Your task to perform on an android device: toggle translation in the chrome app Image 0: 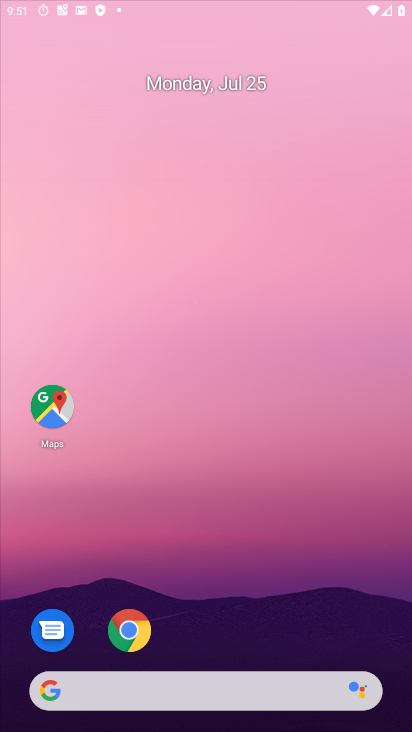
Step 0: press home button
Your task to perform on an android device: toggle translation in the chrome app Image 1: 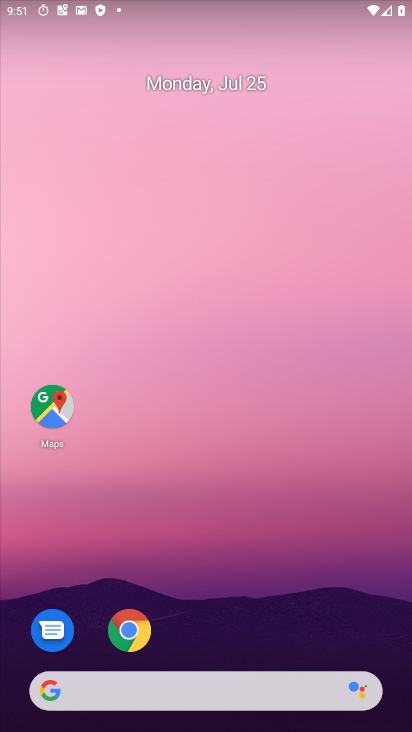
Step 1: drag from (249, 605) to (255, 4)
Your task to perform on an android device: toggle translation in the chrome app Image 2: 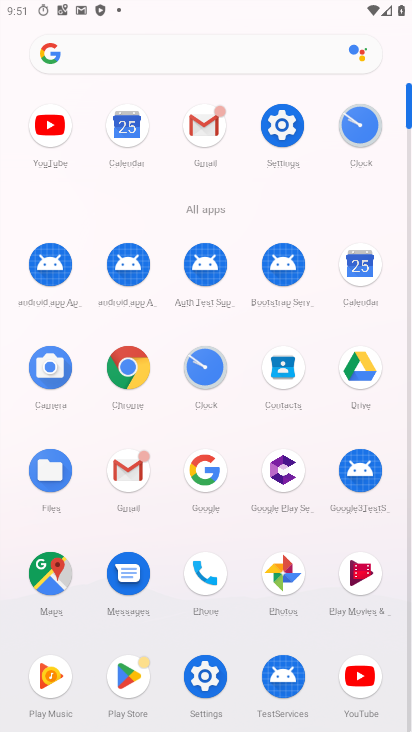
Step 2: click (125, 368)
Your task to perform on an android device: toggle translation in the chrome app Image 3: 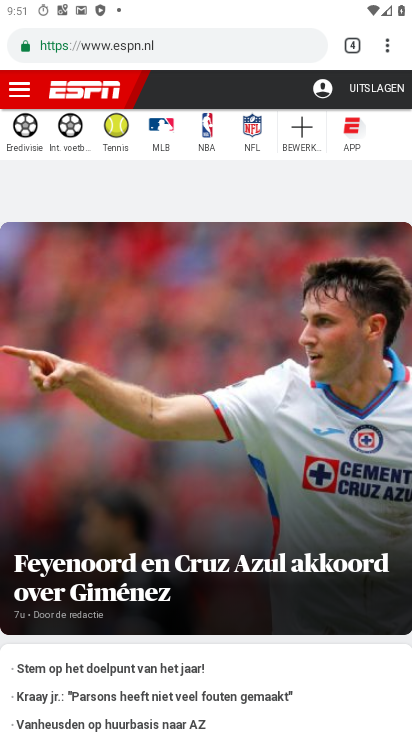
Step 3: drag from (382, 52) to (234, 555)
Your task to perform on an android device: toggle translation in the chrome app Image 4: 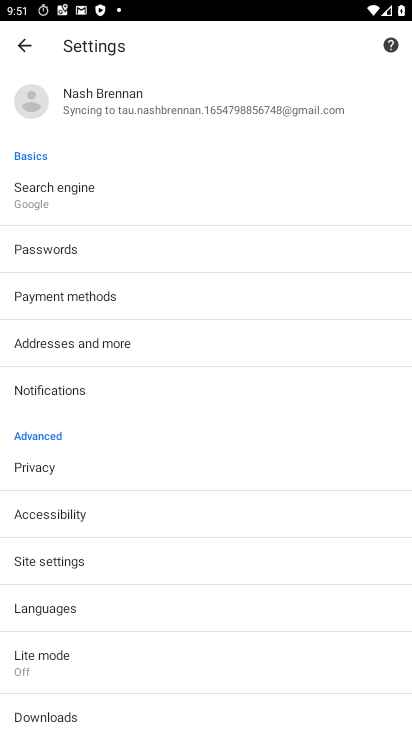
Step 4: click (44, 610)
Your task to perform on an android device: toggle translation in the chrome app Image 5: 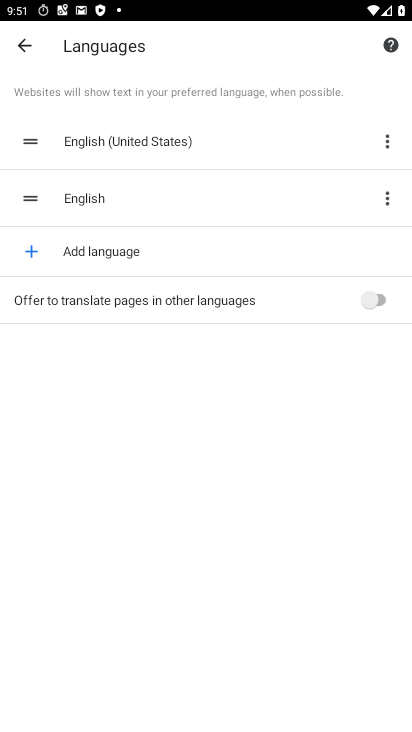
Step 5: click (374, 301)
Your task to perform on an android device: toggle translation in the chrome app Image 6: 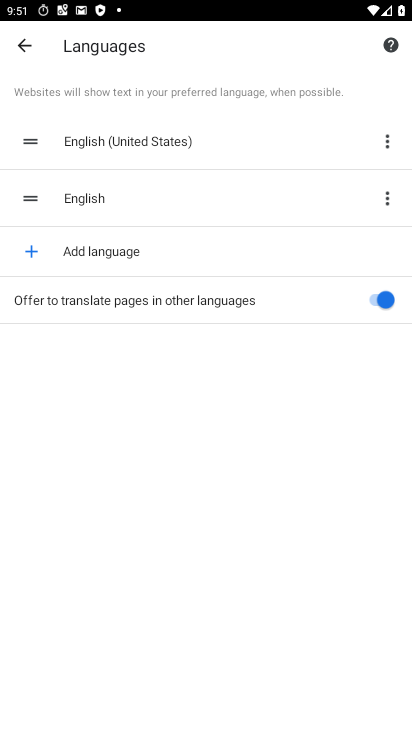
Step 6: task complete